Your task to perform on an android device: change alarm snooze length Image 0: 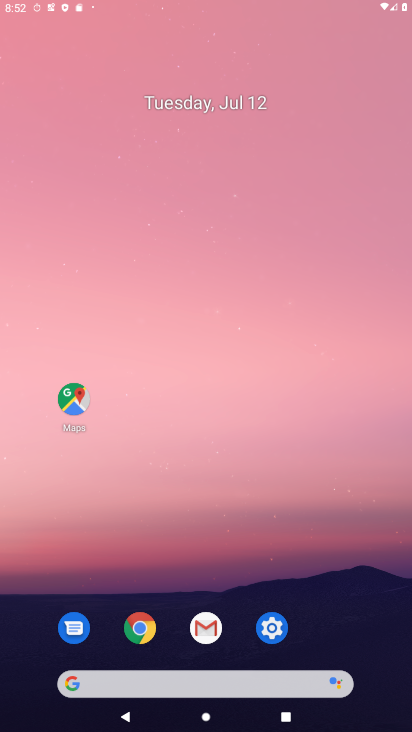
Step 0: drag from (237, 700) to (280, 157)
Your task to perform on an android device: change alarm snooze length Image 1: 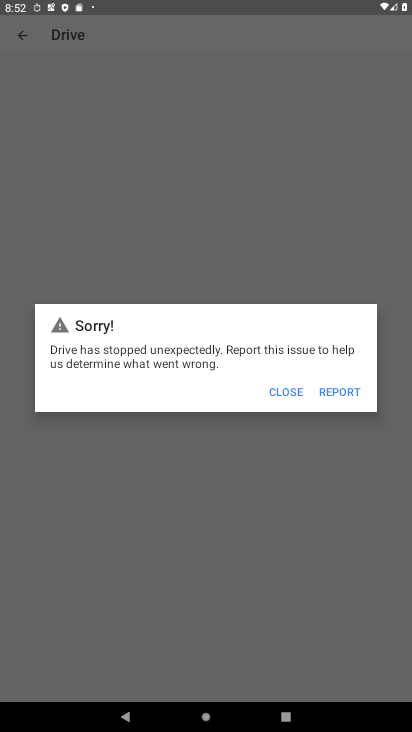
Step 1: press home button
Your task to perform on an android device: change alarm snooze length Image 2: 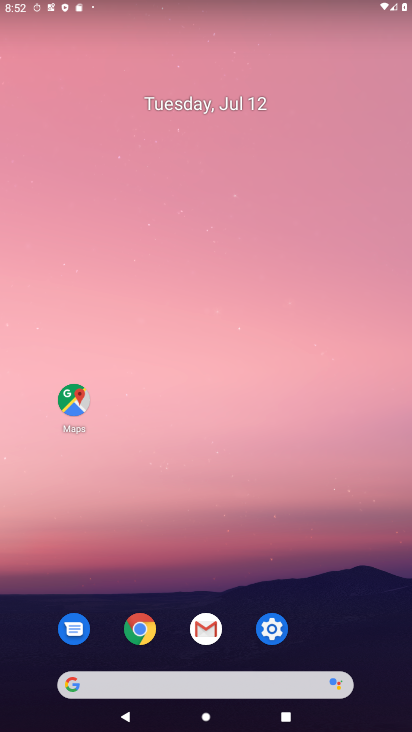
Step 2: drag from (239, 701) to (303, 103)
Your task to perform on an android device: change alarm snooze length Image 3: 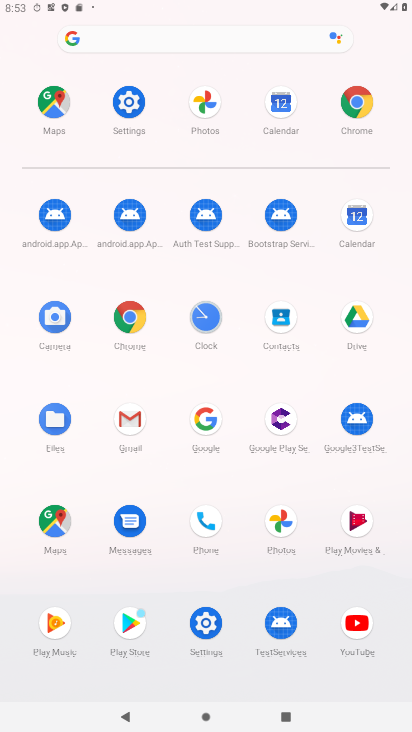
Step 3: click (204, 531)
Your task to perform on an android device: change alarm snooze length Image 4: 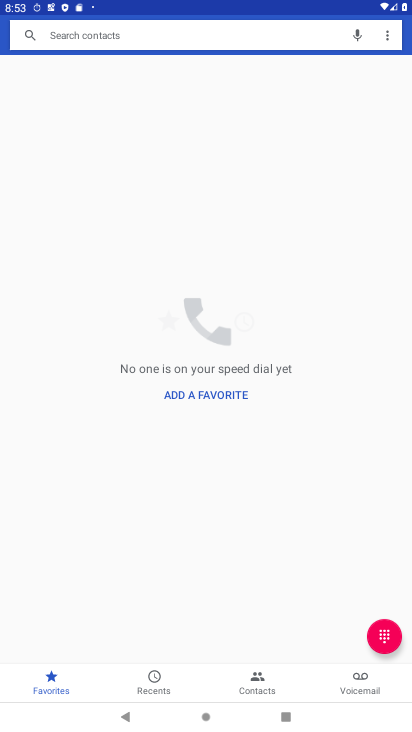
Step 4: click (210, 398)
Your task to perform on an android device: change alarm snooze length Image 5: 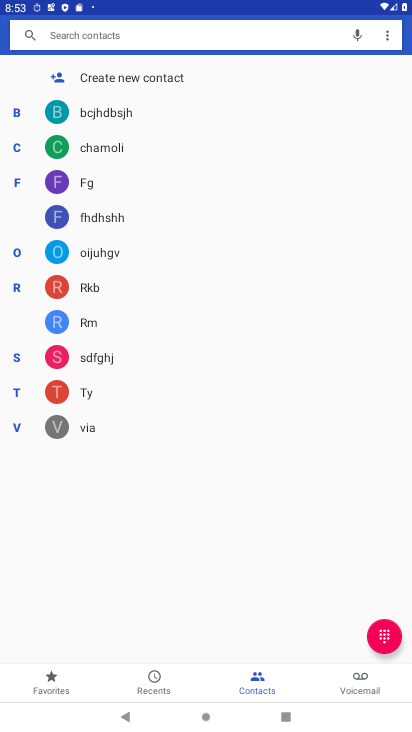
Step 5: click (84, 77)
Your task to perform on an android device: change alarm snooze length Image 6: 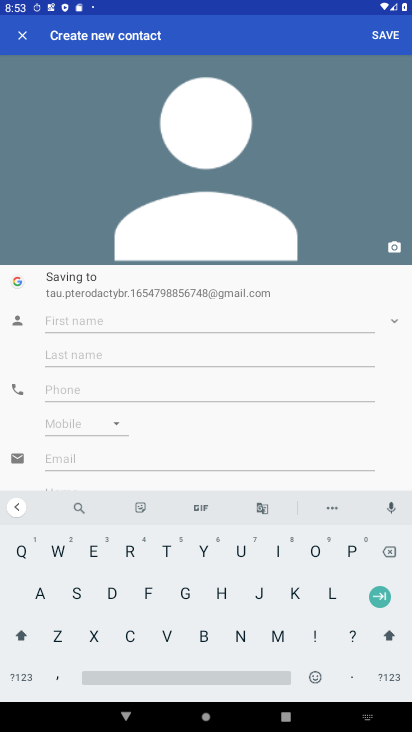
Step 6: click (153, 598)
Your task to perform on an android device: change alarm snooze length Image 7: 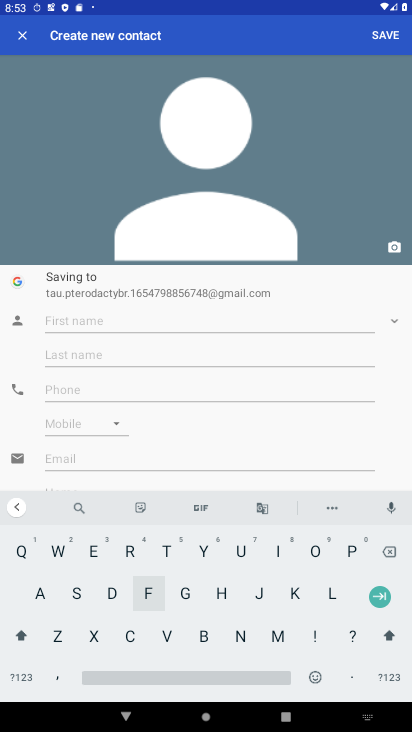
Step 7: click (182, 583)
Your task to perform on an android device: change alarm snooze length Image 8: 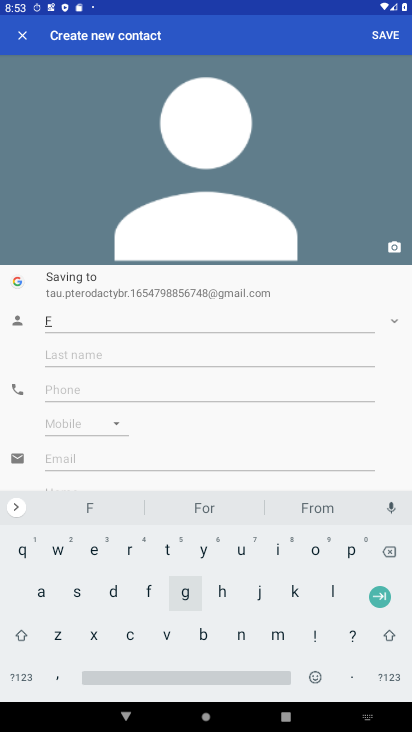
Step 8: click (209, 608)
Your task to perform on an android device: change alarm snooze length Image 9: 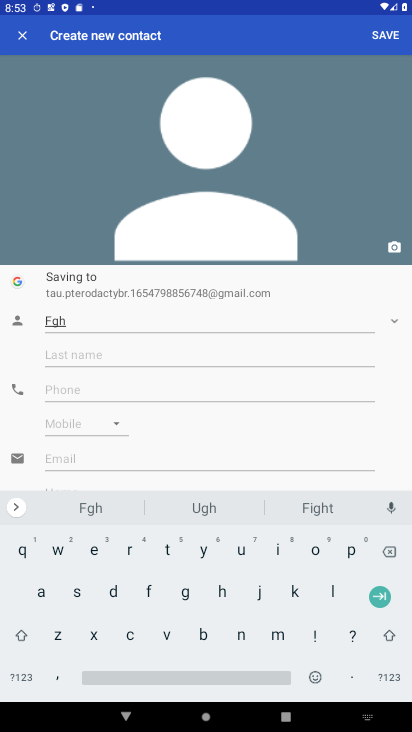
Step 9: click (84, 389)
Your task to perform on an android device: change alarm snooze length Image 10: 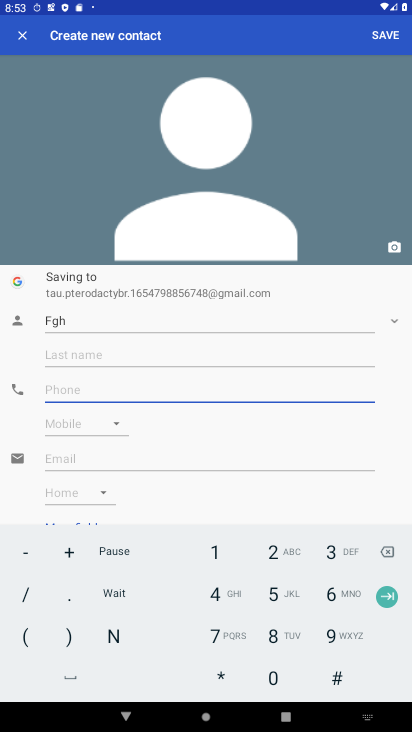
Step 10: click (261, 570)
Your task to perform on an android device: change alarm snooze length Image 11: 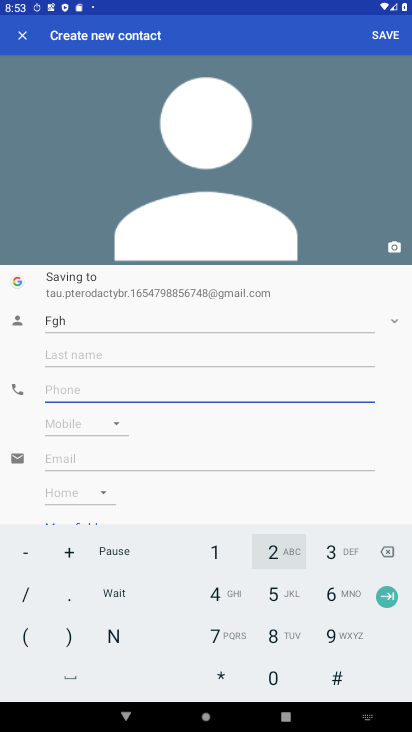
Step 11: click (213, 611)
Your task to perform on an android device: change alarm snooze length Image 12: 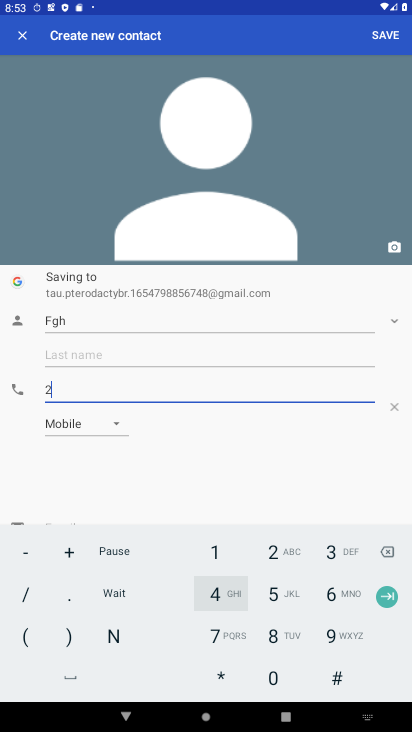
Step 12: click (254, 616)
Your task to perform on an android device: change alarm snooze length Image 13: 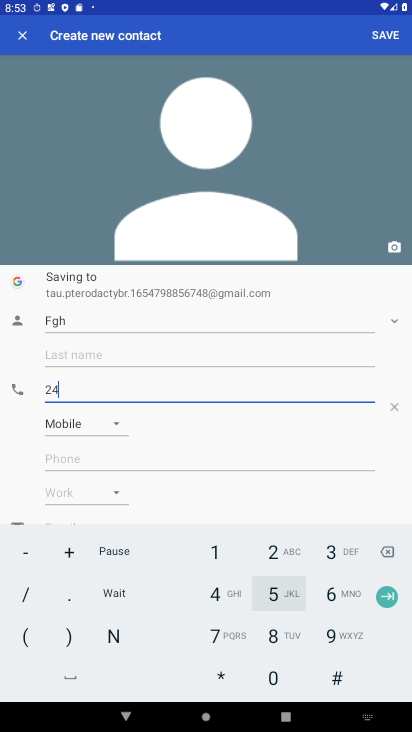
Step 13: click (263, 611)
Your task to perform on an android device: change alarm snooze length Image 14: 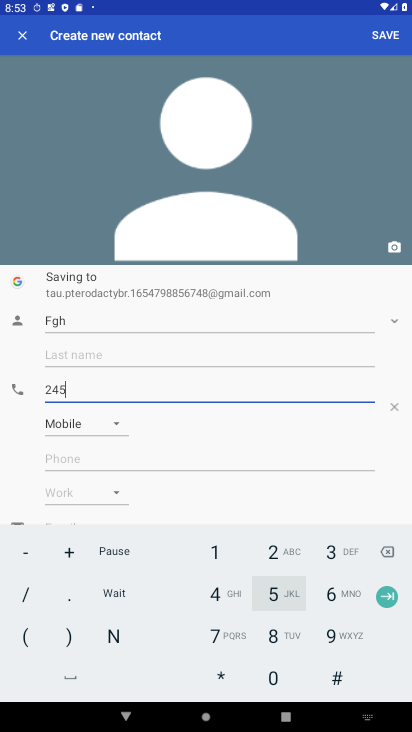
Step 14: click (233, 625)
Your task to perform on an android device: change alarm snooze length Image 15: 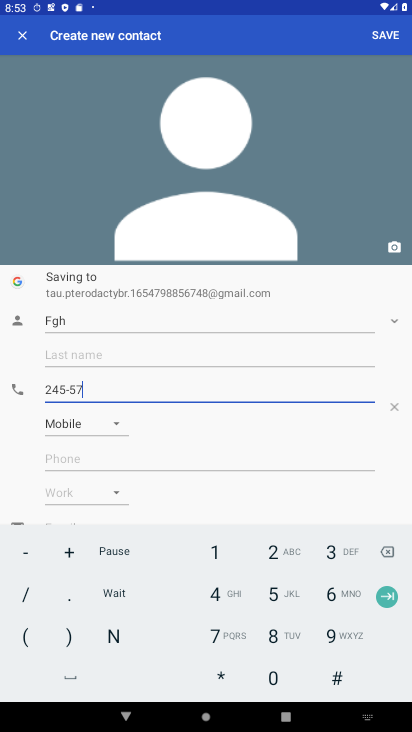
Step 15: click (385, 36)
Your task to perform on an android device: change alarm snooze length Image 16: 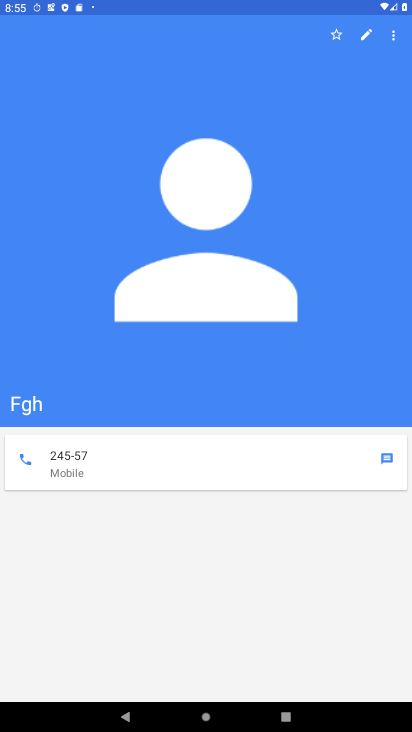
Step 16: task complete